Your task to perform on an android device: Open Chrome and go to settings Image 0: 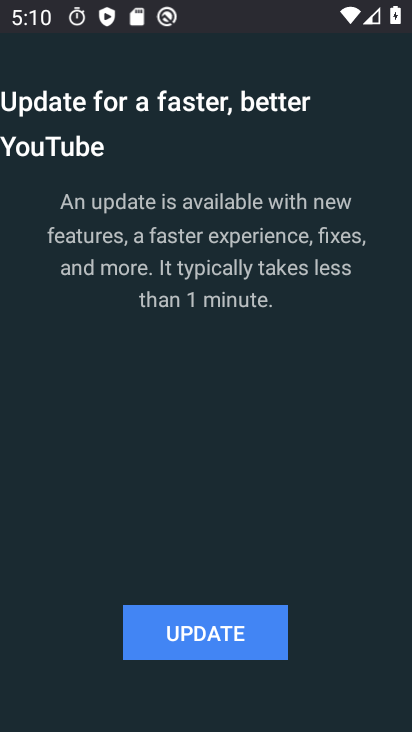
Step 0: drag from (310, 503) to (268, 128)
Your task to perform on an android device: Open Chrome and go to settings Image 1: 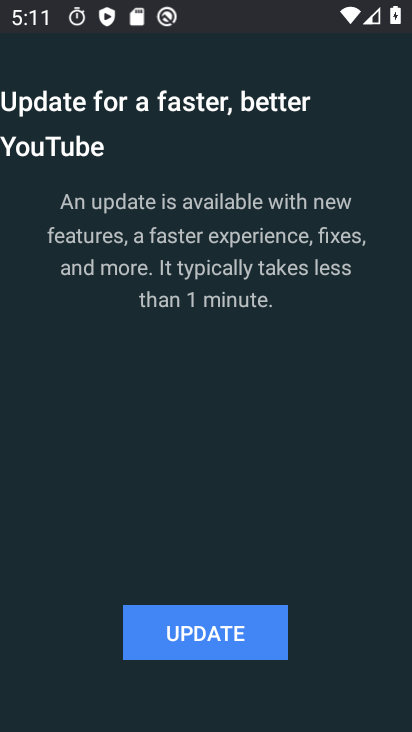
Step 1: press home button
Your task to perform on an android device: Open Chrome and go to settings Image 2: 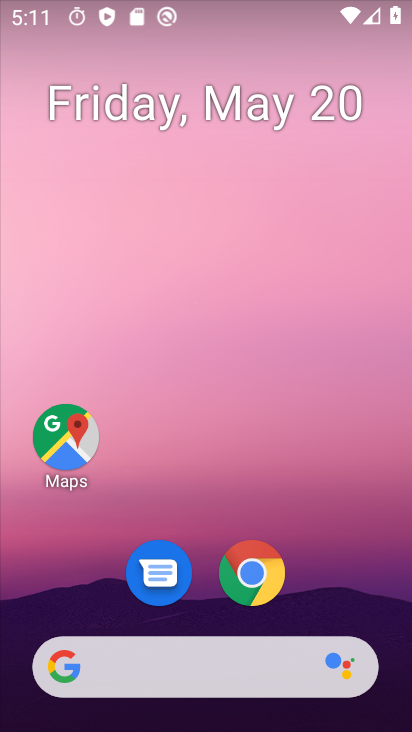
Step 2: click (266, 575)
Your task to perform on an android device: Open Chrome and go to settings Image 3: 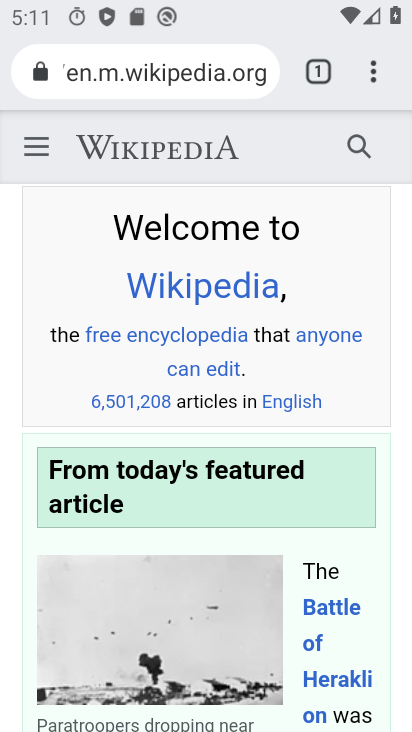
Step 3: click (374, 72)
Your task to perform on an android device: Open Chrome and go to settings Image 4: 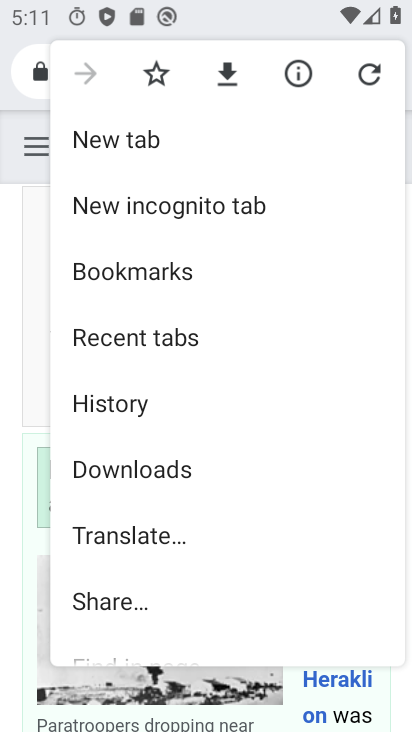
Step 4: drag from (228, 445) to (192, 116)
Your task to perform on an android device: Open Chrome and go to settings Image 5: 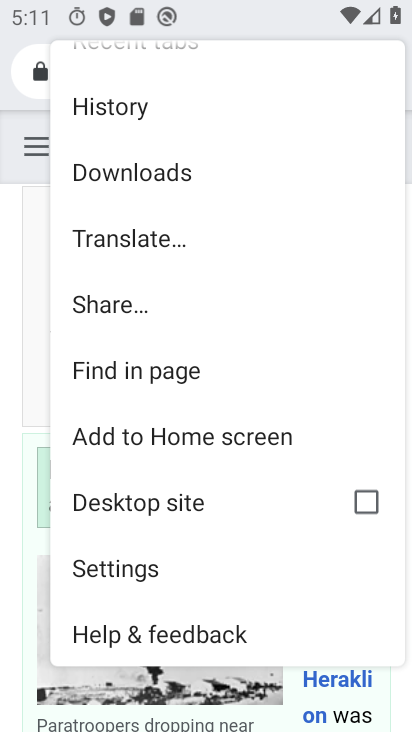
Step 5: click (145, 559)
Your task to perform on an android device: Open Chrome and go to settings Image 6: 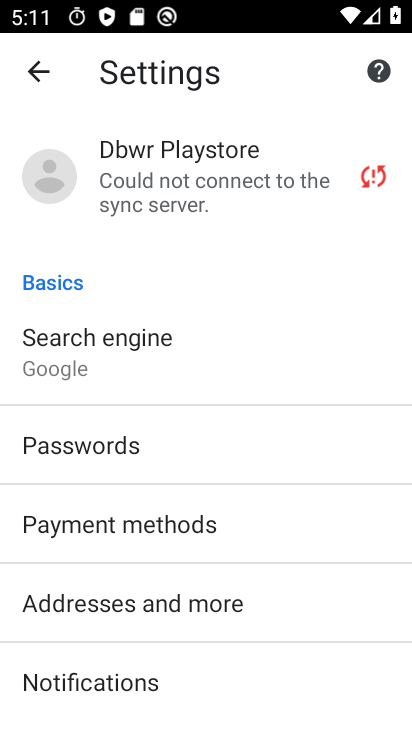
Step 6: task complete